Your task to perform on an android device: visit the assistant section in the google photos Image 0: 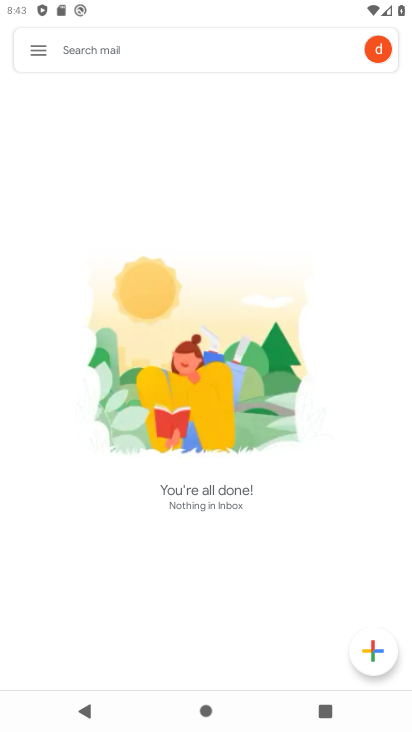
Step 0: press home button
Your task to perform on an android device: visit the assistant section in the google photos Image 1: 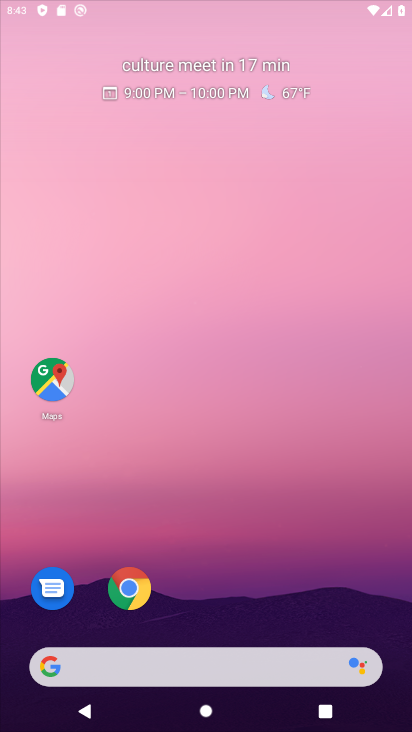
Step 1: drag from (233, 610) to (326, 14)
Your task to perform on an android device: visit the assistant section in the google photos Image 2: 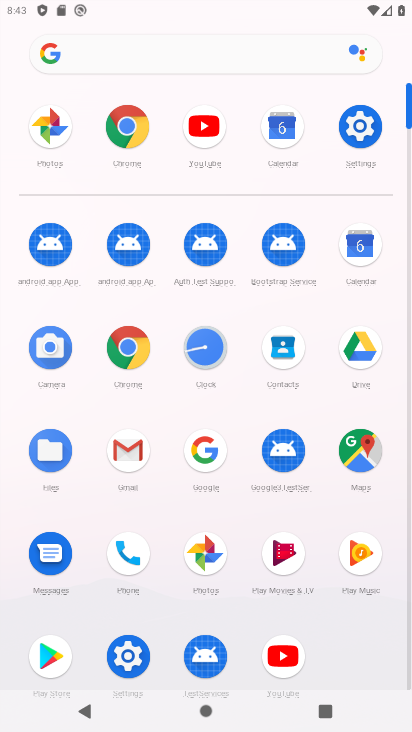
Step 2: click (197, 556)
Your task to perform on an android device: visit the assistant section in the google photos Image 3: 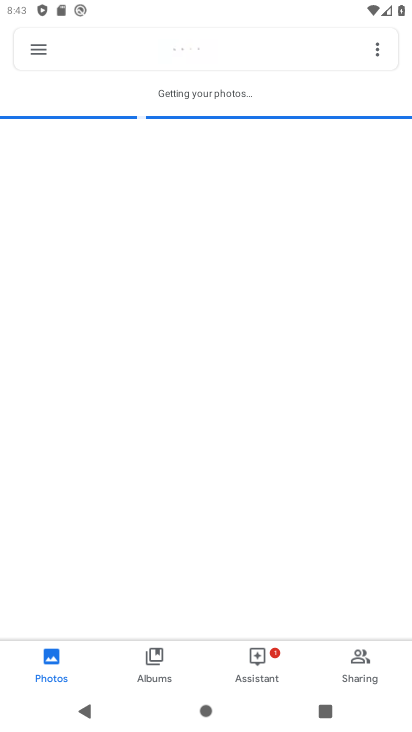
Step 3: click (266, 673)
Your task to perform on an android device: visit the assistant section in the google photos Image 4: 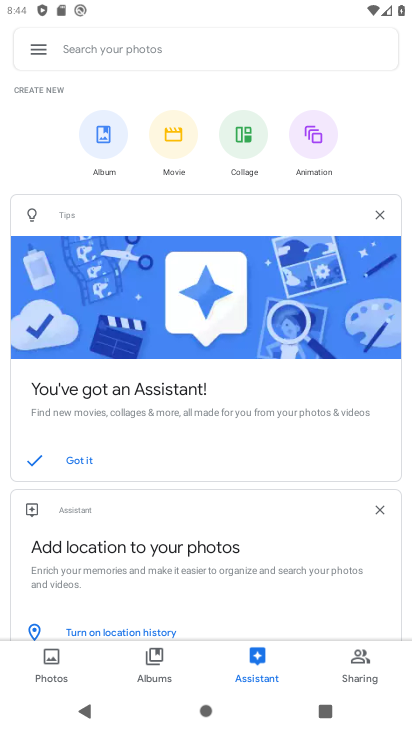
Step 4: task complete